Your task to perform on an android device: open app "Google Keep" Image 0: 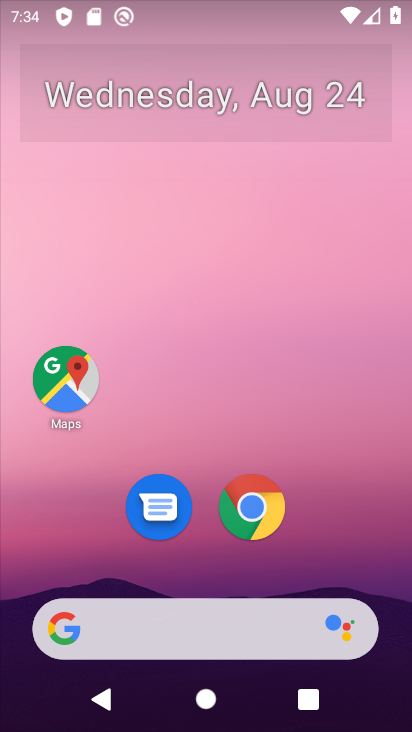
Step 0: press home button
Your task to perform on an android device: open app "Google Keep" Image 1: 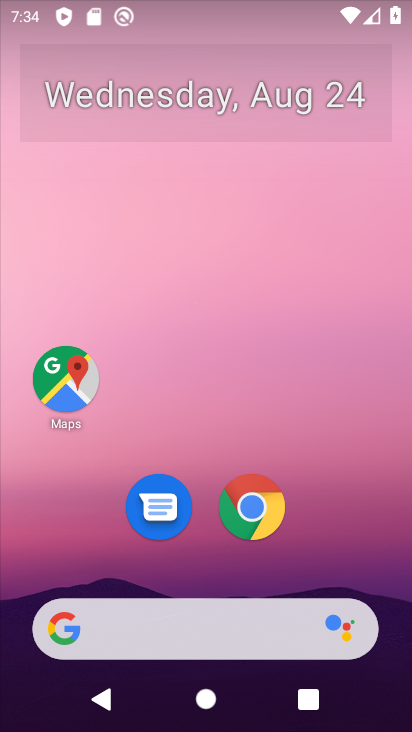
Step 1: drag from (340, 540) to (325, 279)
Your task to perform on an android device: open app "Google Keep" Image 2: 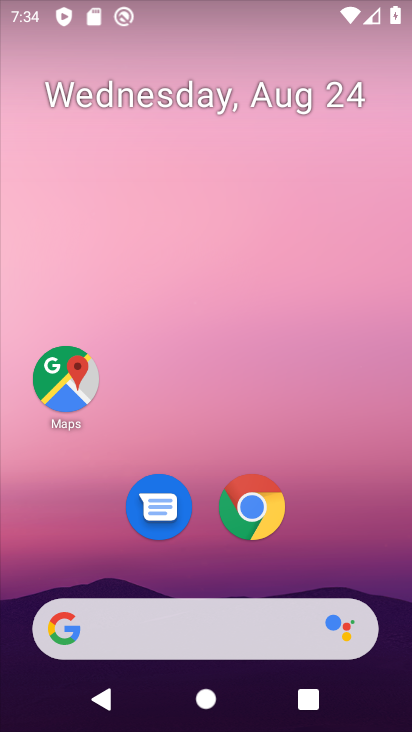
Step 2: drag from (376, 558) to (364, 75)
Your task to perform on an android device: open app "Google Keep" Image 3: 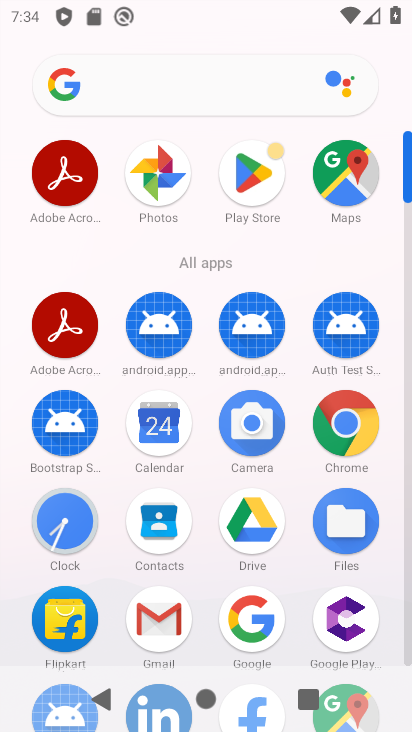
Step 3: click (262, 180)
Your task to perform on an android device: open app "Google Keep" Image 4: 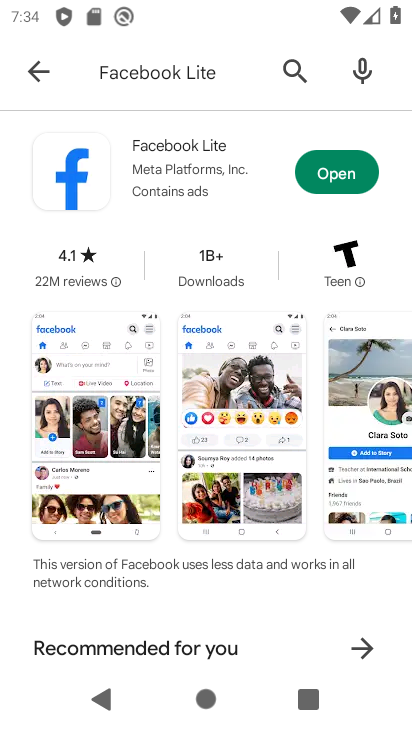
Step 4: press back button
Your task to perform on an android device: open app "Google Keep" Image 5: 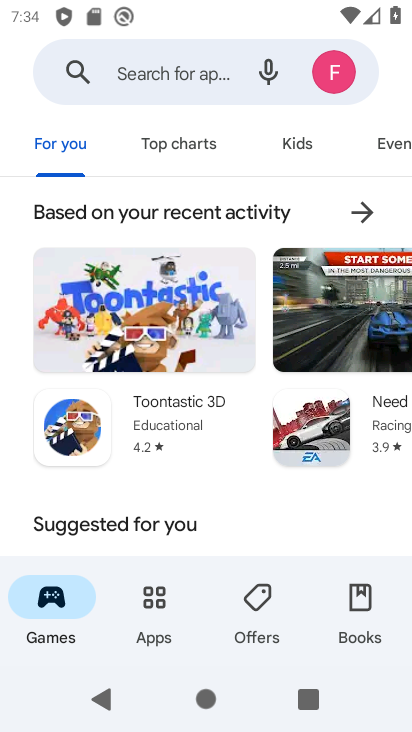
Step 5: click (203, 74)
Your task to perform on an android device: open app "Google Keep" Image 6: 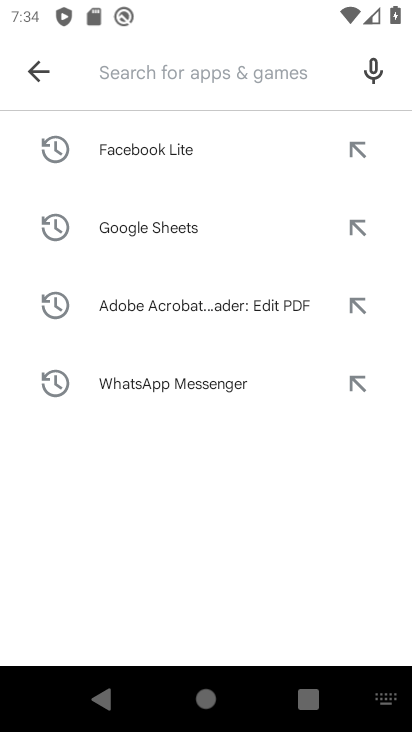
Step 6: type "Google Keep"
Your task to perform on an android device: open app "Google Keep" Image 7: 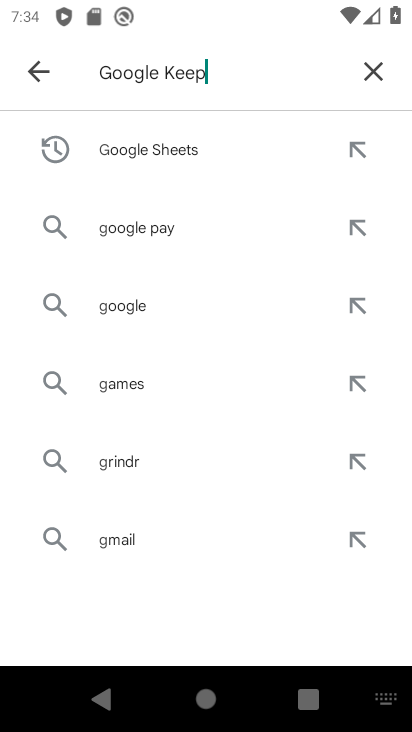
Step 7: press enter
Your task to perform on an android device: open app "Google Keep" Image 8: 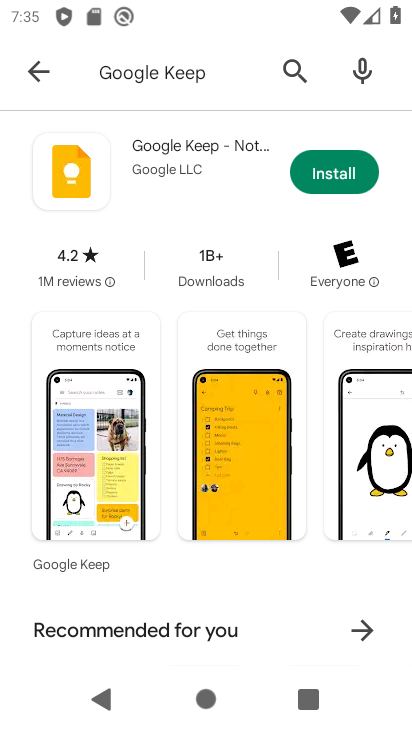
Step 8: task complete